Your task to perform on an android device: How much does a 3 bedroom apartment rent for in Washington DC? Image 0: 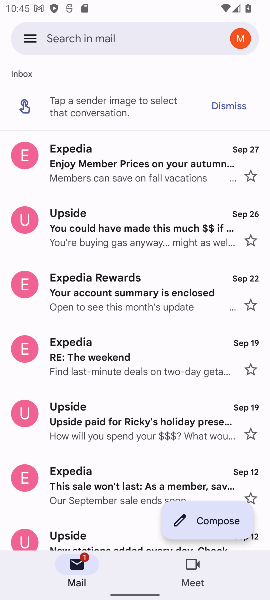
Step 0: press home button
Your task to perform on an android device: How much does a 3 bedroom apartment rent for in Washington DC? Image 1: 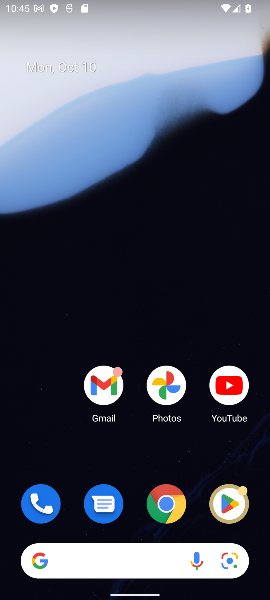
Step 1: click (167, 504)
Your task to perform on an android device: How much does a 3 bedroom apartment rent for in Washington DC? Image 2: 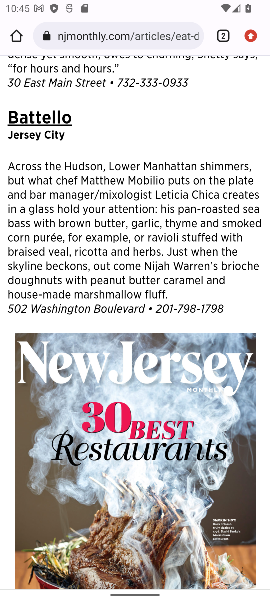
Step 2: click (128, 23)
Your task to perform on an android device: How much does a 3 bedroom apartment rent for in Washington DC? Image 3: 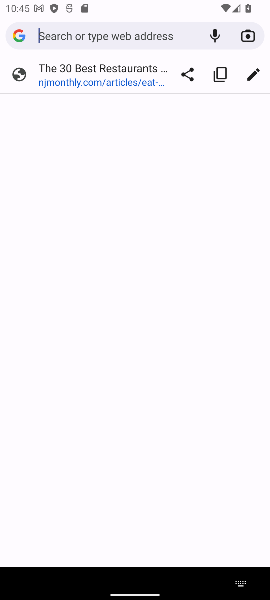
Step 3: type "How much does a 3 bedroom apartment rent for in Washington DC?"
Your task to perform on an android device: How much does a 3 bedroom apartment rent for in Washington DC? Image 4: 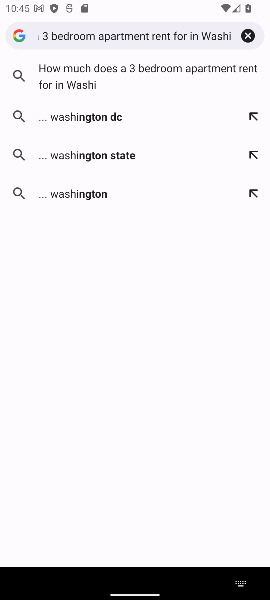
Step 4: click (88, 75)
Your task to perform on an android device: How much does a 3 bedroom apartment rent for in Washington DC? Image 5: 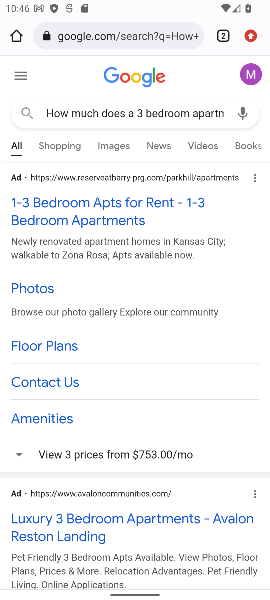
Step 5: drag from (122, 456) to (98, 154)
Your task to perform on an android device: How much does a 3 bedroom apartment rent for in Washington DC? Image 6: 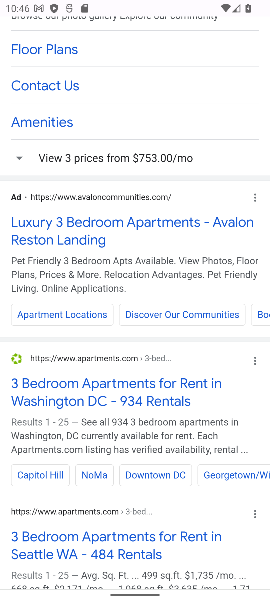
Step 6: click (65, 386)
Your task to perform on an android device: How much does a 3 bedroom apartment rent for in Washington DC? Image 7: 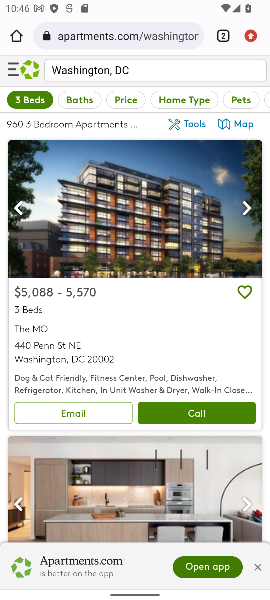
Step 7: task complete